Your task to perform on an android device: toggle wifi Image 0: 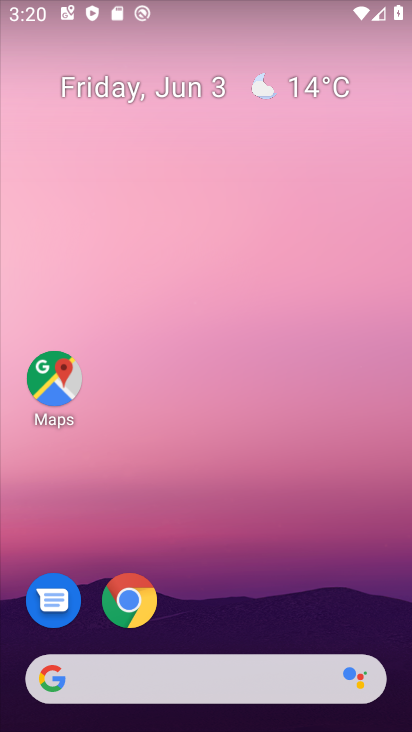
Step 0: drag from (246, 13) to (185, 418)
Your task to perform on an android device: toggle wifi Image 1: 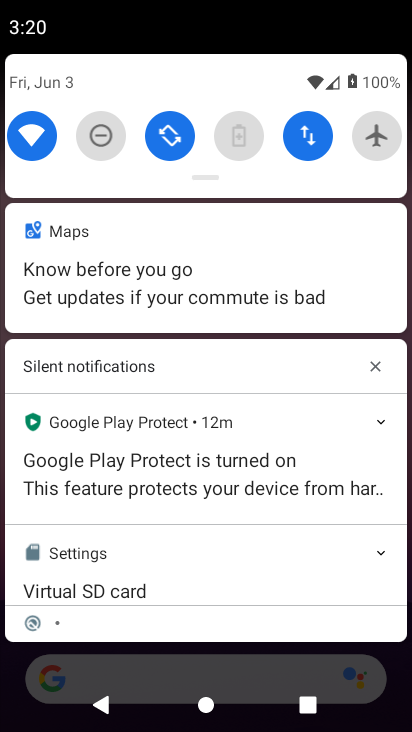
Step 1: click (33, 140)
Your task to perform on an android device: toggle wifi Image 2: 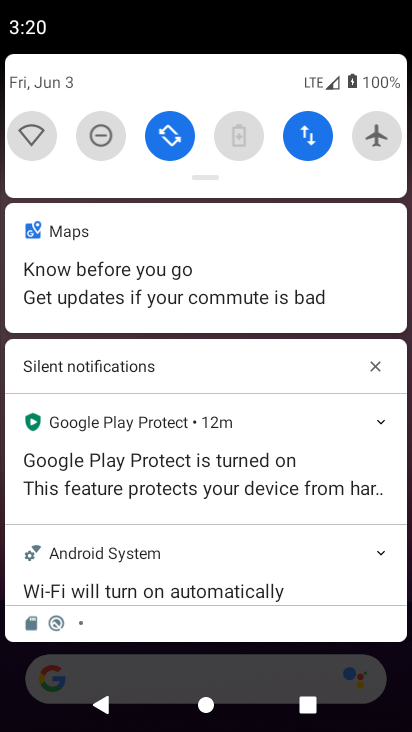
Step 2: task complete